Your task to perform on an android device: turn on wifi Image 0: 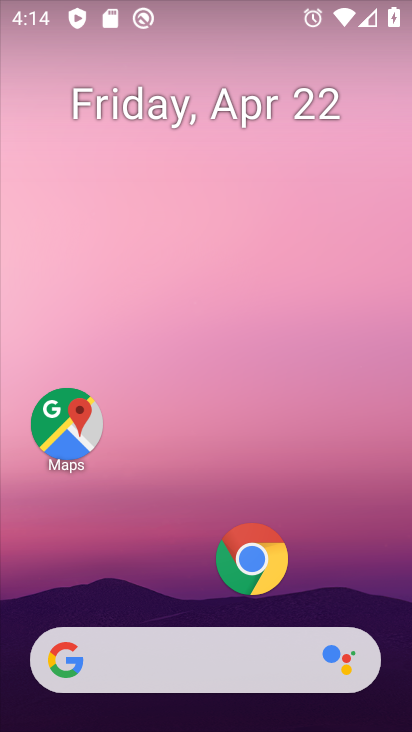
Step 0: drag from (167, 565) to (271, 52)
Your task to perform on an android device: turn on wifi Image 1: 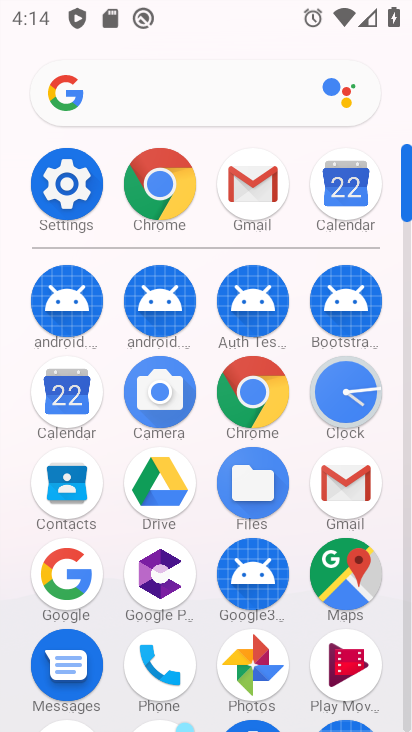
Step 1: click (60, 194)
Your task to perform on an android device: turn on wifi Image 2: 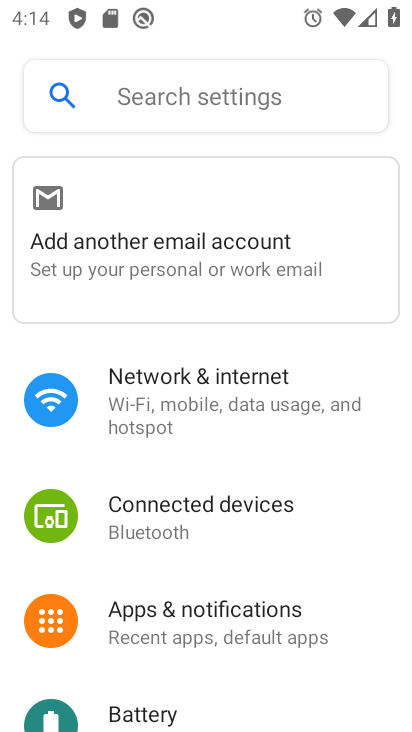
Step 2: click (232, 402)
Your task to perform on an android device: turn on wifi Image 3: 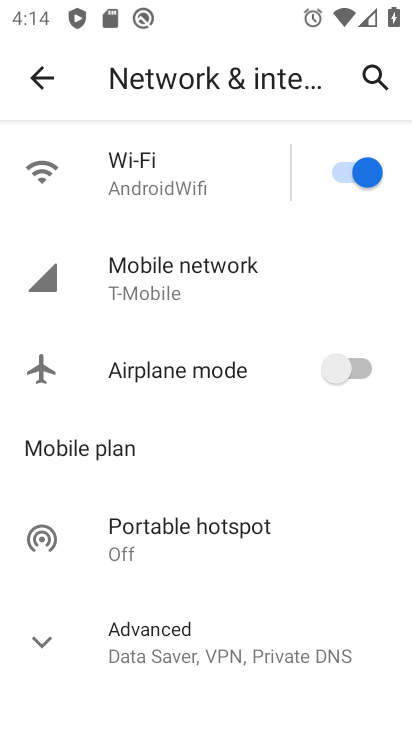
Step 3: task complete